Your task to perform on an android device: turn on improve location accuracy Image 0: 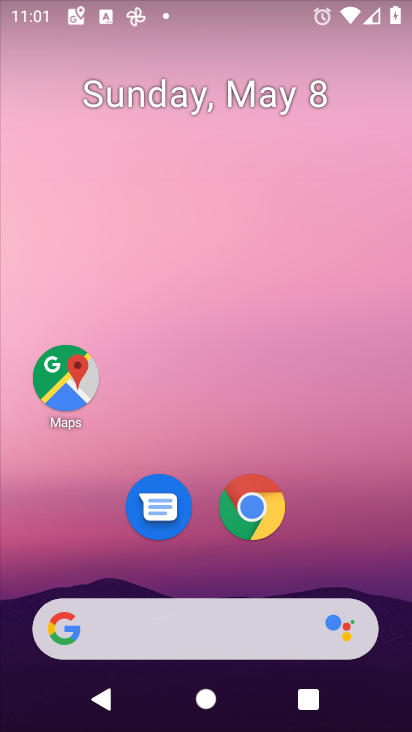
Step 0: drag from (271, 634) to (179, 35)
Your task to perform on an android device: turn on improve location accuracy Image 1: 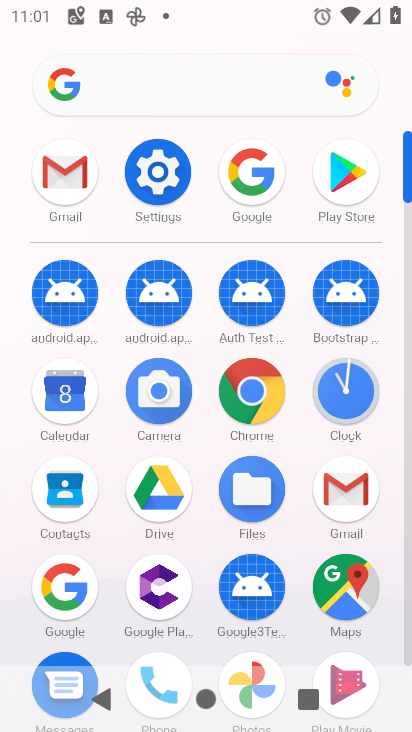
Step 1: click (143, 182)
Your task to perform on an android device: turn on improve location accuracy Image 2: 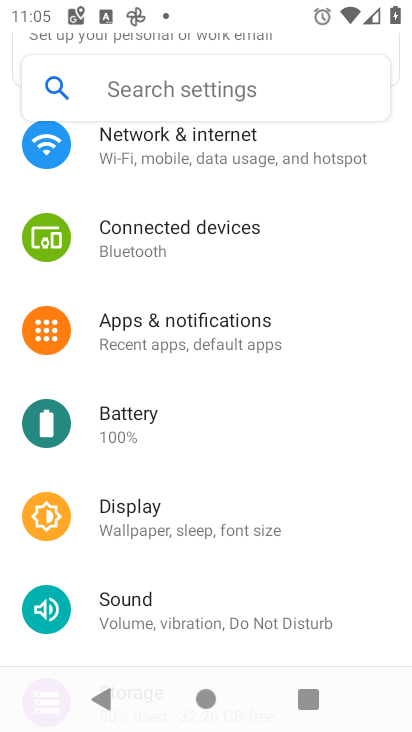
Step 2: drag from (238, 571) to (279, 55)
Your task to perform on an android device: turn on improve location accuracy Image 3: 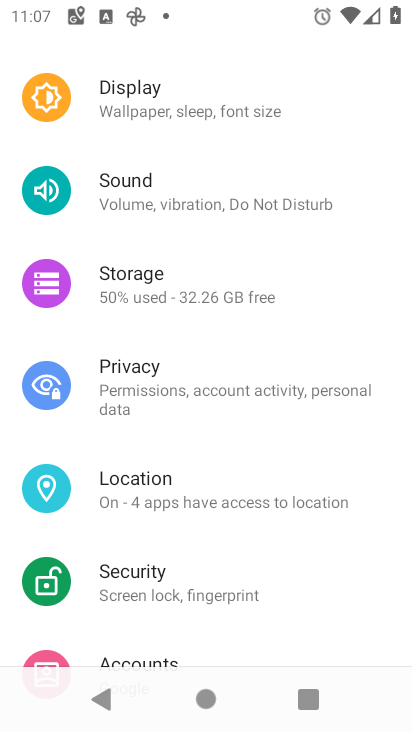
Step 3: click (260, 499)
Your task to perform on an android device: turn on improve location accuracy Image 4: 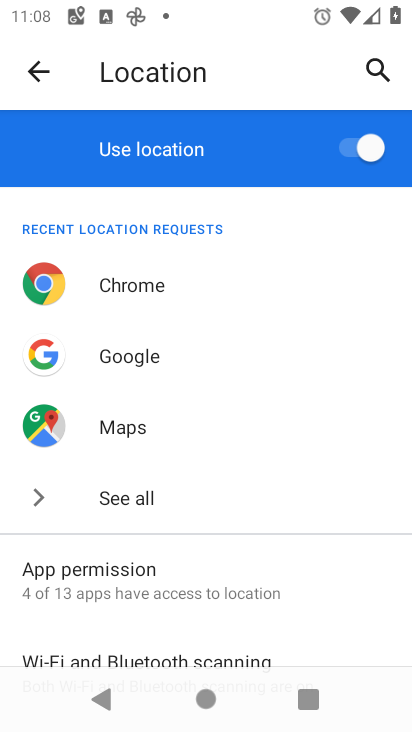
Step 4: drag from (342, 594) to (250, 25)
Your task to perform on an android device: turn on improve location accuracy Image 5: 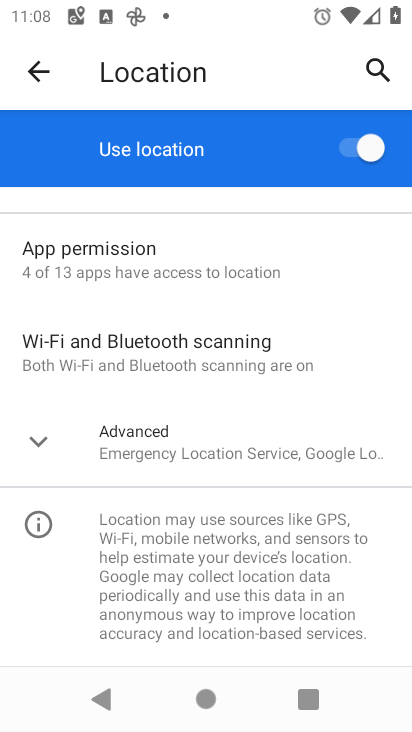
Step 5: click (252, 442)
Your task to perform on an android device: turn on improve location accuracy Image 6: 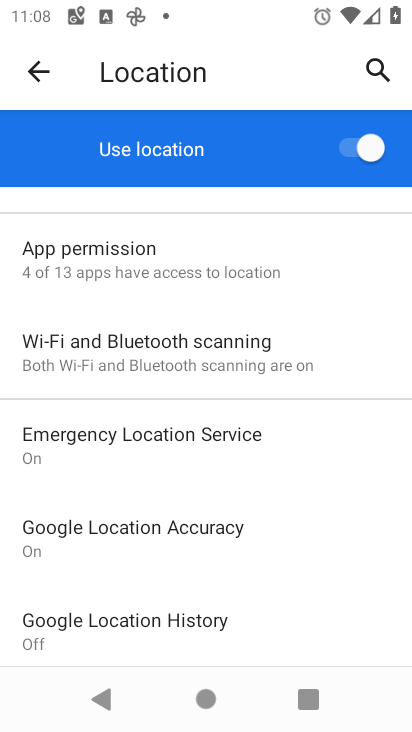
Step 6: click (210, 525)
Your task to perform on an android device: turn on improve location accuracy Image 7: 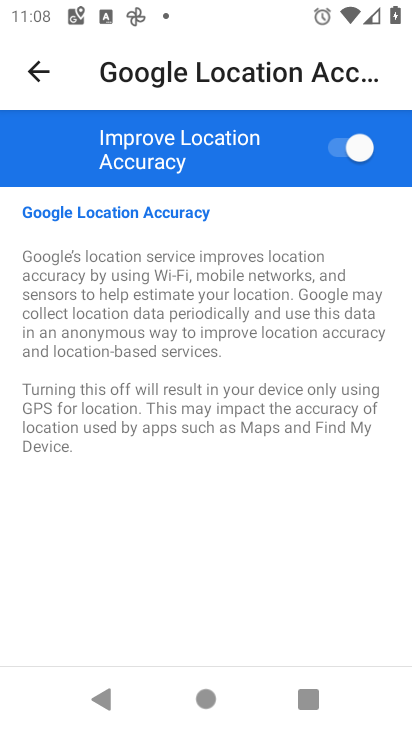
Step 7: task complete